Your task to perform on an android device: open app "LinkedIn" Image 0: 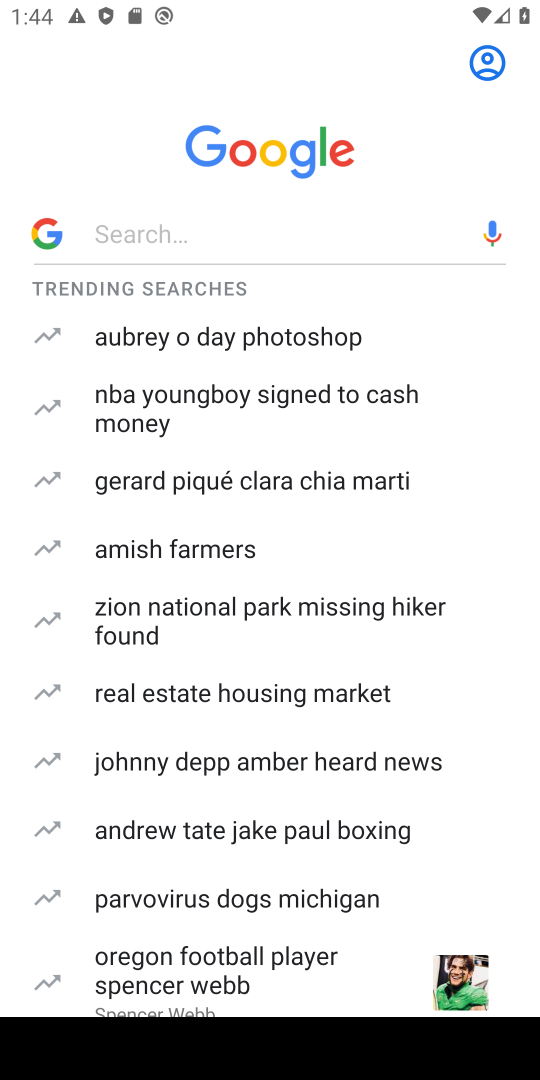
Step 0: press back button
Your task to perform on an android device: open app "LinkedIn" Image 1: 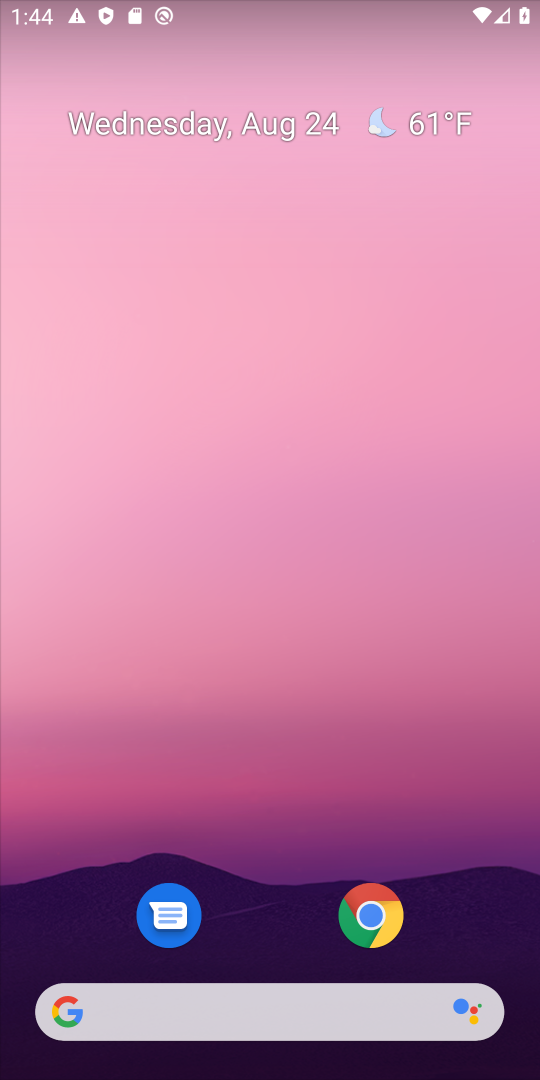
Step 1: drag from (296, 844) to (294, 250)
Your task to perform on an android device: open app "LinkedIn" Image 2: 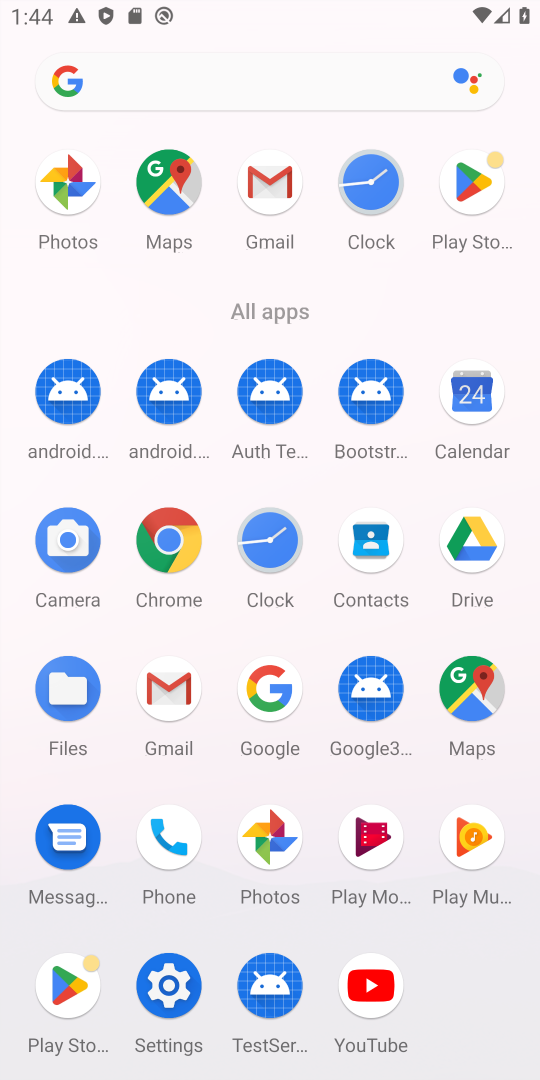
Step 2: click (462, 178)
Your task to perform on an android device: open app "LinkedIn" Image 3: 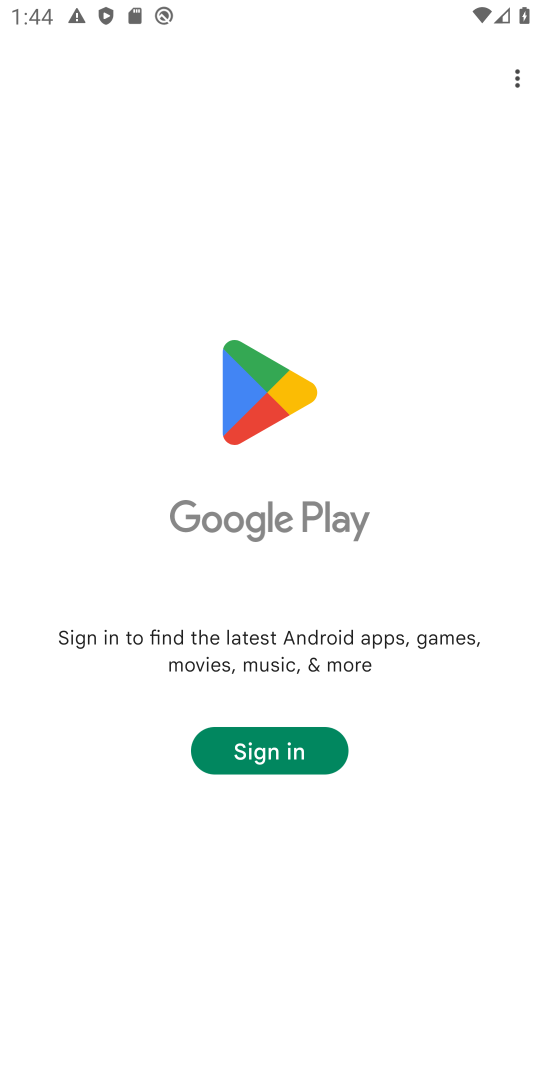
Step 3: task complete